Your task to perform on an android device: Open my contact list Image 0: 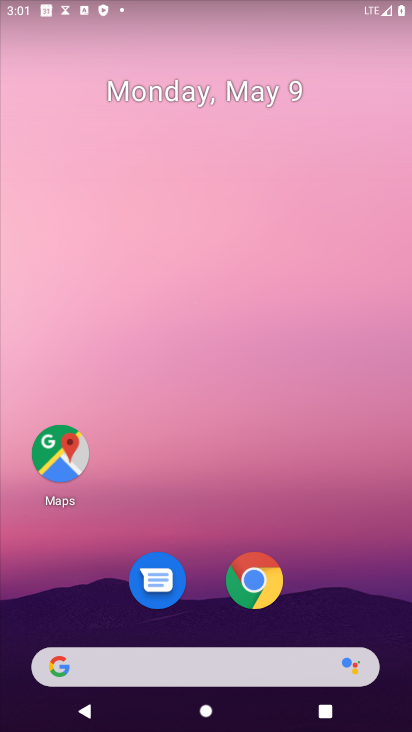
Step 0: drag from (337, 589) to (282, 85)
Your task to perform on an android device: Open my contact list Image 1: 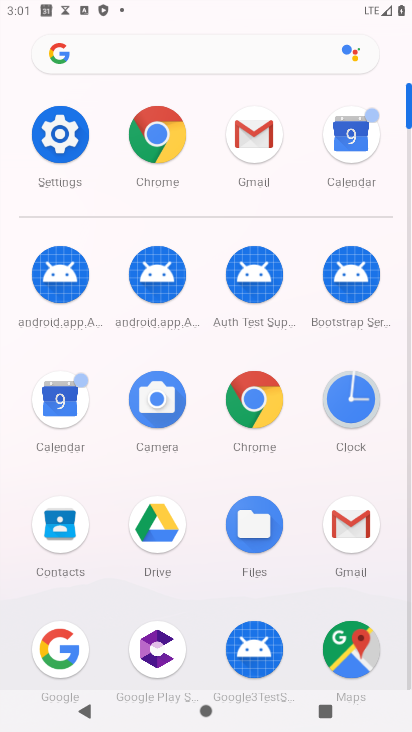
Step 1: click (65, 521)
Your task to perform on an android device: Open my contact list Image 2: 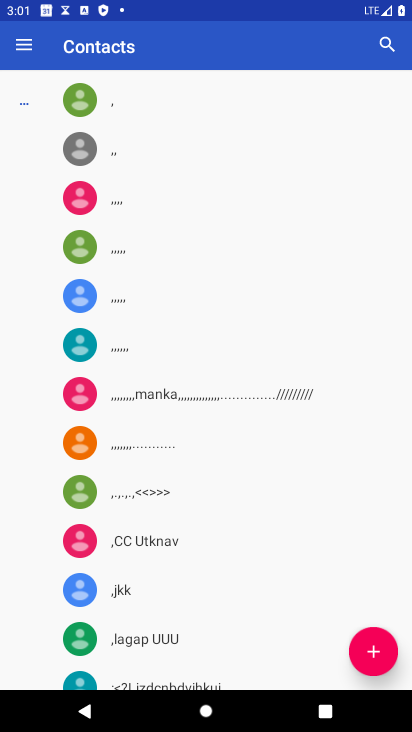
Step 2: task complete